Your task to perform on an android device: Go to Google maps Image 0: 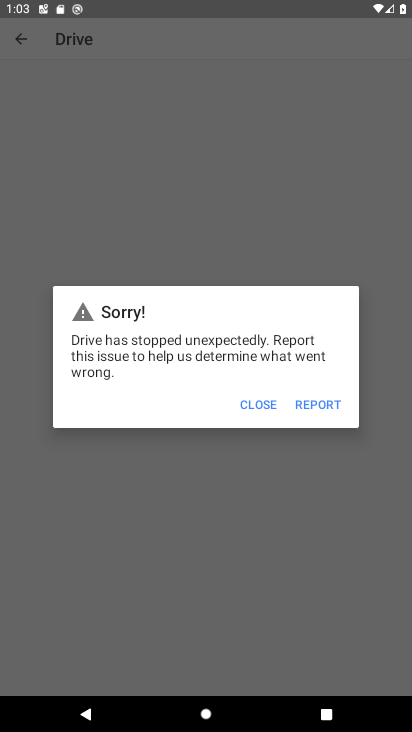
Step 0: press home button
Your task to perform on an android device: Go to Google maps Image 1: 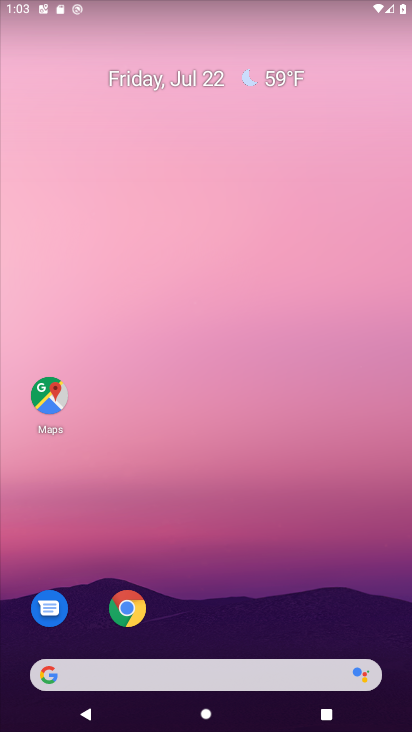
Step 1: click (48, 379)
Your task to perform on an android device: Go to Google maps Image 2: 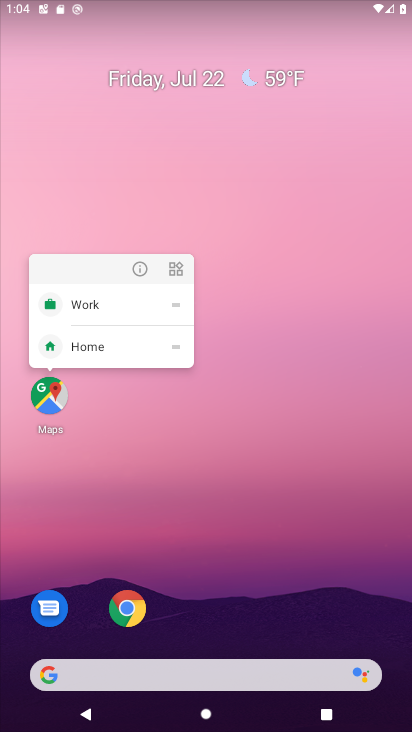
Step 2: click (54, 418)
Your task to perform on an android device: Go to Google maps Image 3: 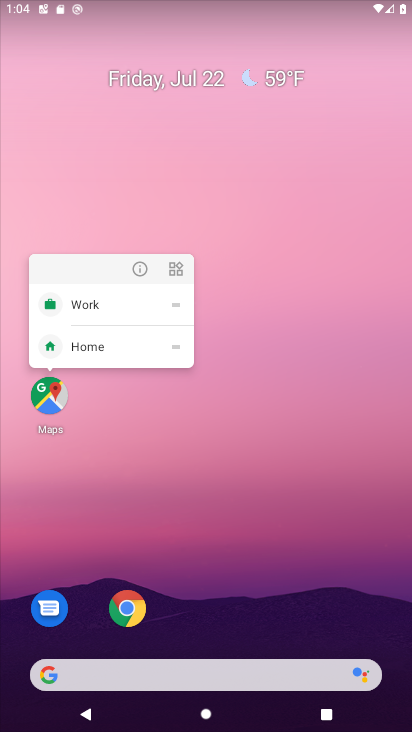
Step 3: click (49, 402)
Your task to perform on an android device: Go to Google maps Image 4: 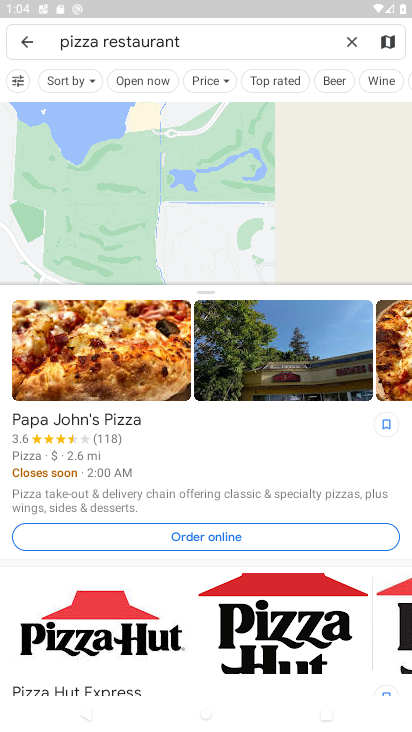
Step 4: click (26, 44)
Your task to perform on an android device: Go to Google maps Image 5: 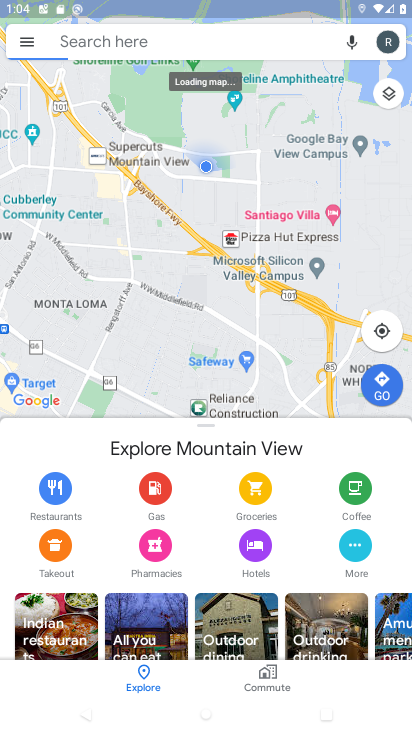
Step 5: task complete